Your task to perform on an android device: Go to ESPN.com Image 0: 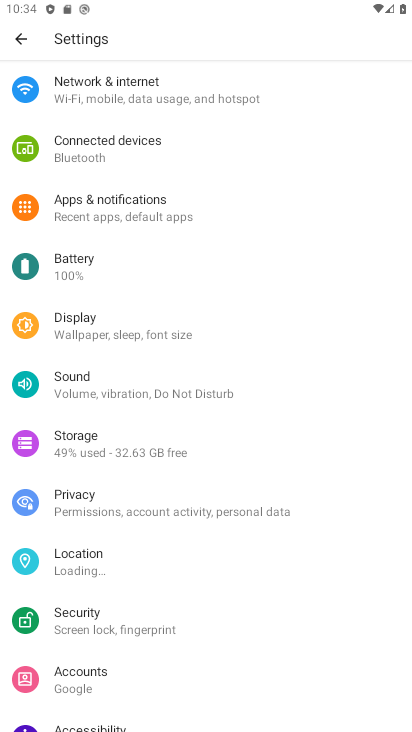
Step 0: press home button
Your task to perform on an android device: Go to ESPN.com Image 1: 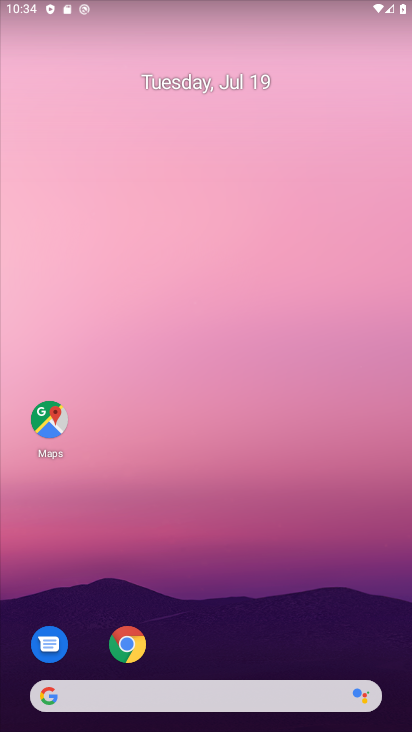
Step 1: click (125, 640)
Your task to perform on an android device: Go to ESPN.com Image 2: 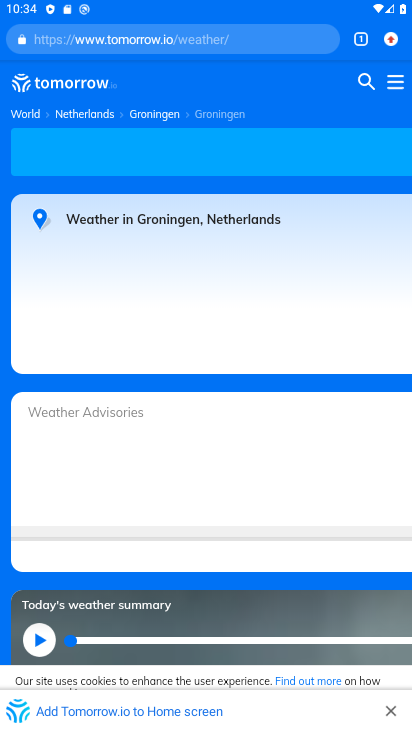
Step 2: click (391, 41)
Your task to perform on an android device: Go to ESPN.com Image 3: 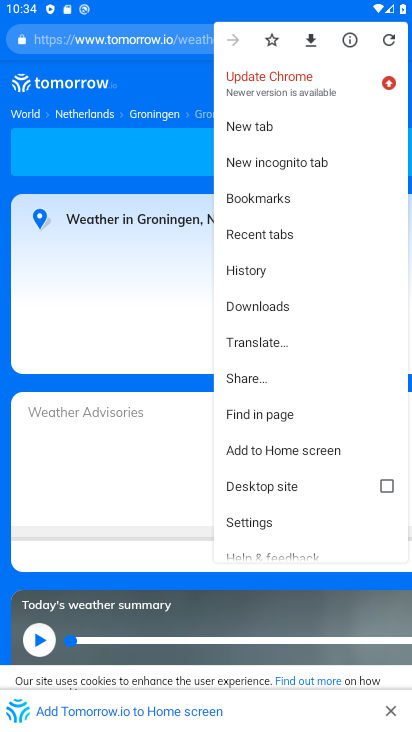
Step 3: click (246, 125)
Your task to perform on an android device: Go to ESPN.com Image 4: 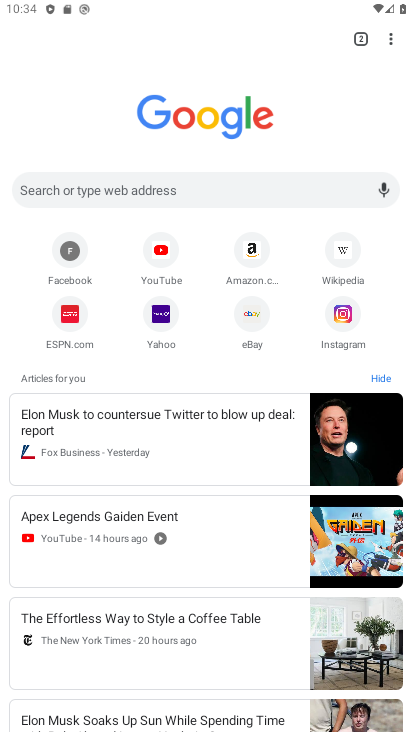
Step 4: click (68, 320)
Your task to perform on an android device: Go to ESPN.com Image 5: 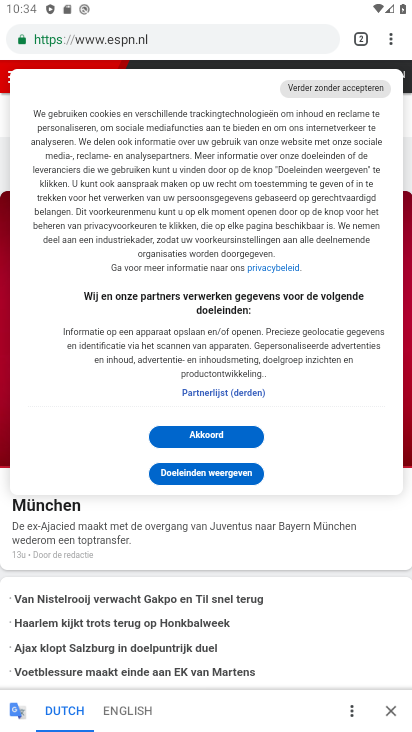
Step 5: drag from (222, 578) to (220, 310)
Your task to perform on an android device: Go to ESPN.com Image 6: 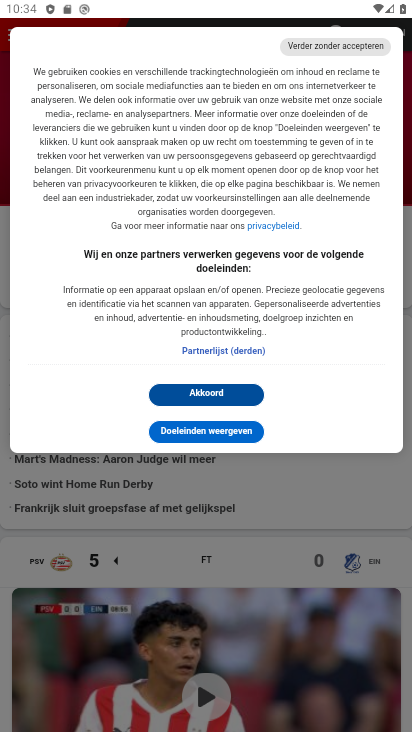
Step 6: click (188, 397)
Your task to perform on an android device: Go to ESPN.com Image 7: 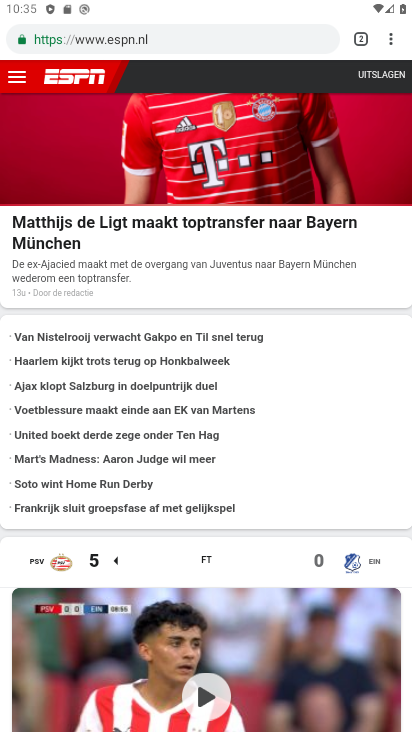
Step 7: task complete